Your task to perform on an android device: What's the weather? Image 0: 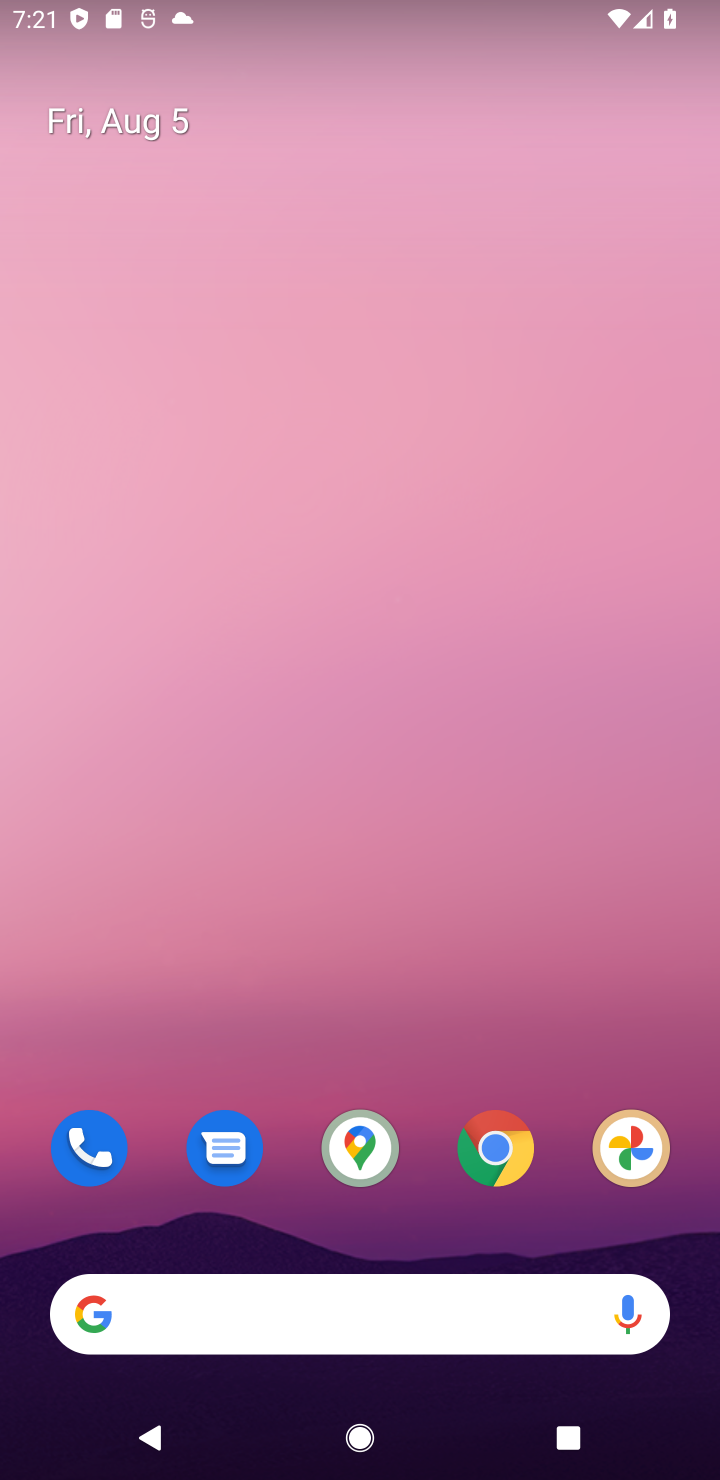
Step 0: click (378, 1314)
Your task to perform on an android device: What's the weather? Image 1: 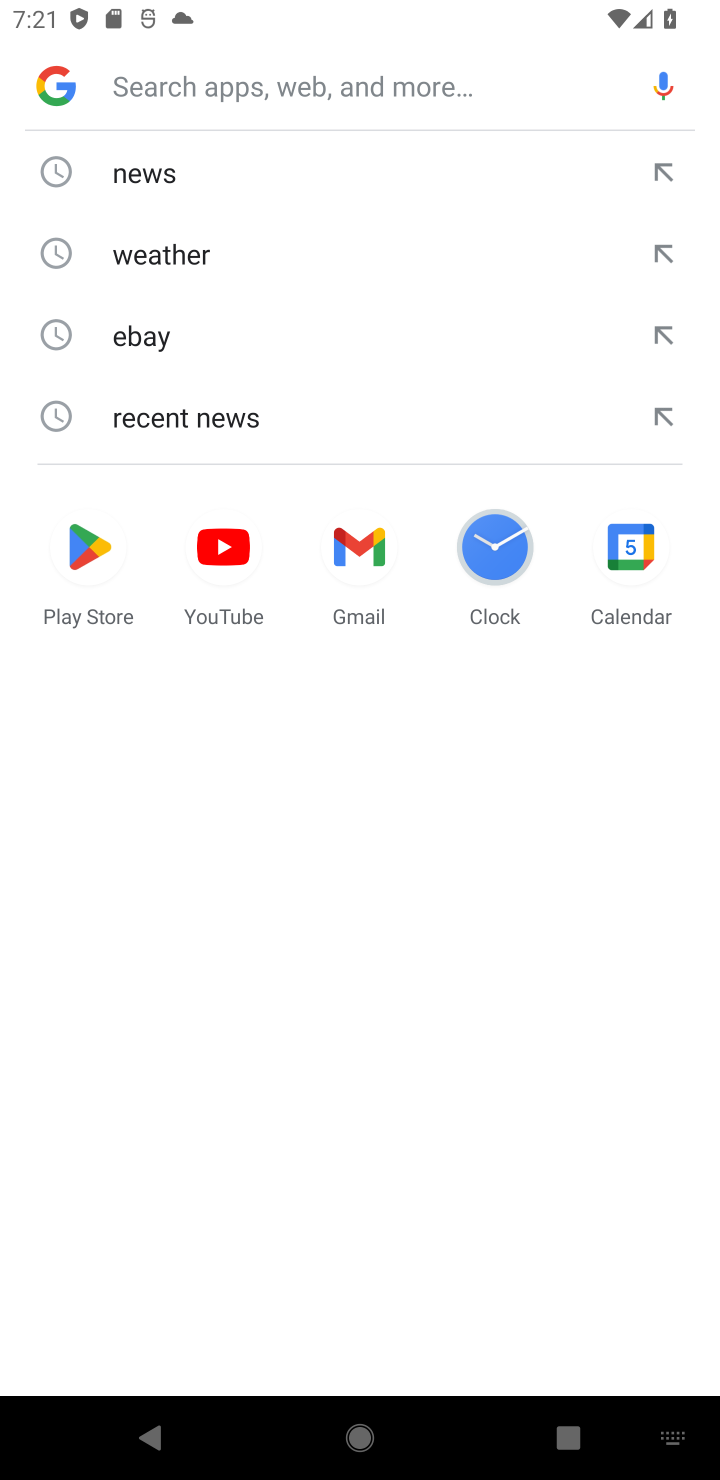
Step 1: click (255, 268)
Your task to perform on an android device: What's the weather? Image 2: 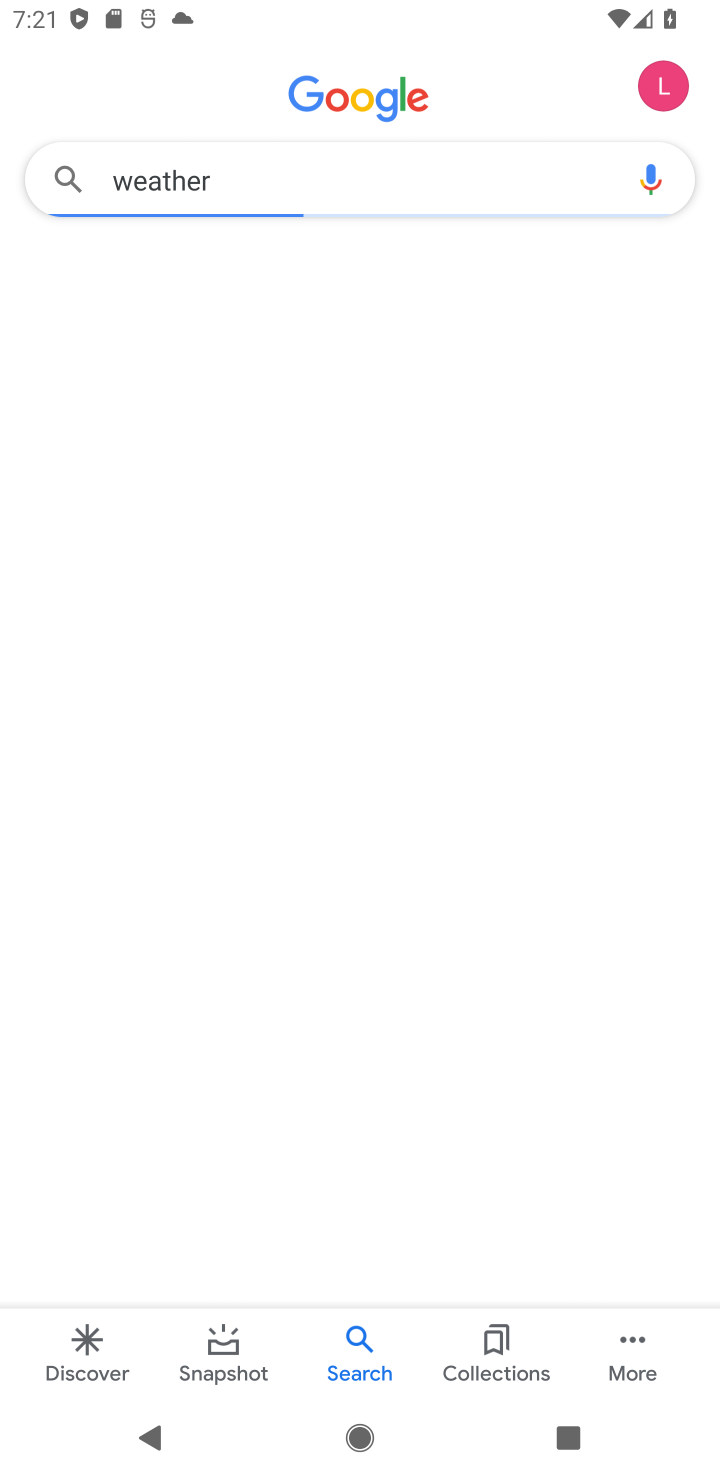
Step 2: task complete